Your task to perform on an android device: Turn on the flashlight Image 0: 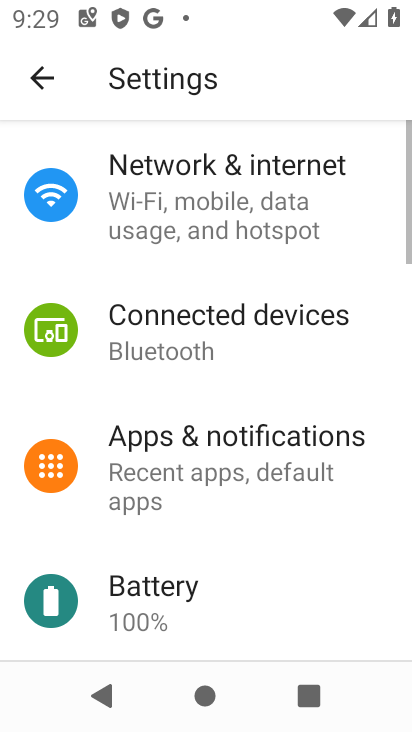
Step 0: press home button
Your task to perform on an android device: Turn on the flashlight Image 1: 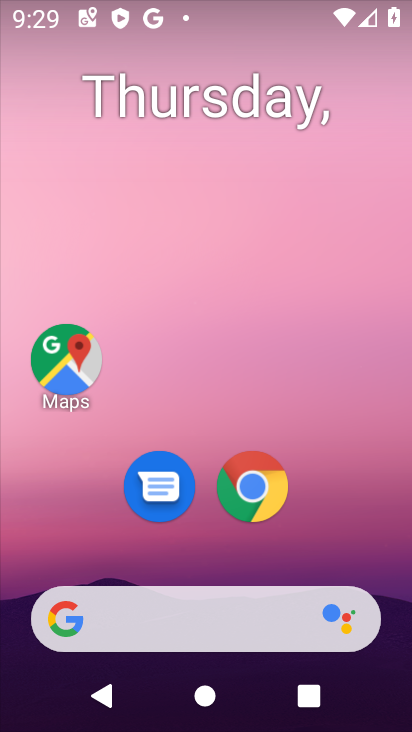
Step 1: drag from (193, 545) to (319, 3)
Your task to perform on an android device: Turn on the flashlight Image 2: 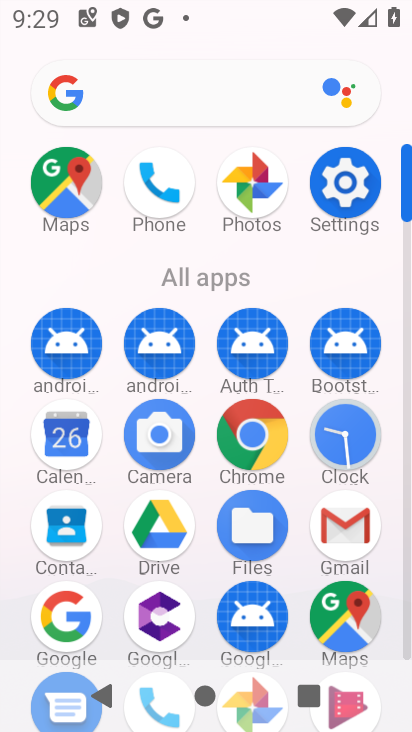
Step 2: click (325, 177)
Your task to perform on an android device: Turn on the flashlight Image 3: 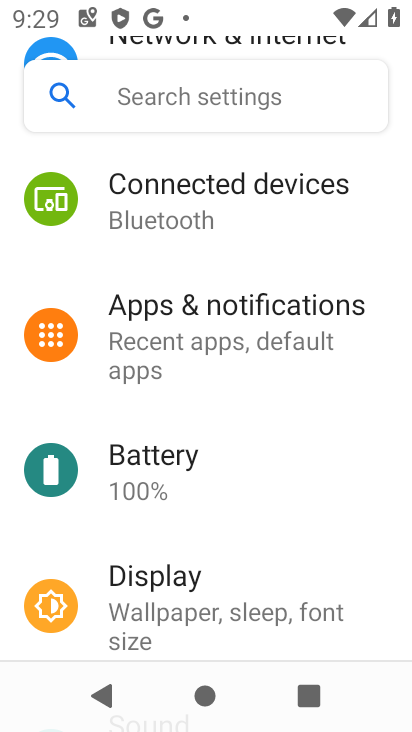
Step 3: task complete